Your task to perform on an android device: Open privacy settings Image 0: 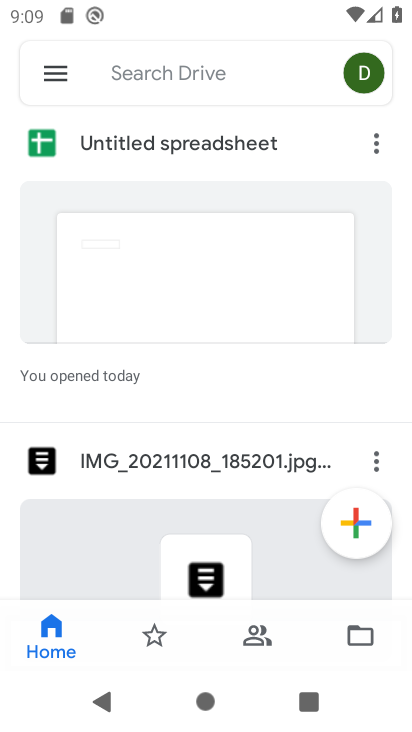
Step 0: press home button
Your task to perform on an android device: Open privacy settings Image 1: 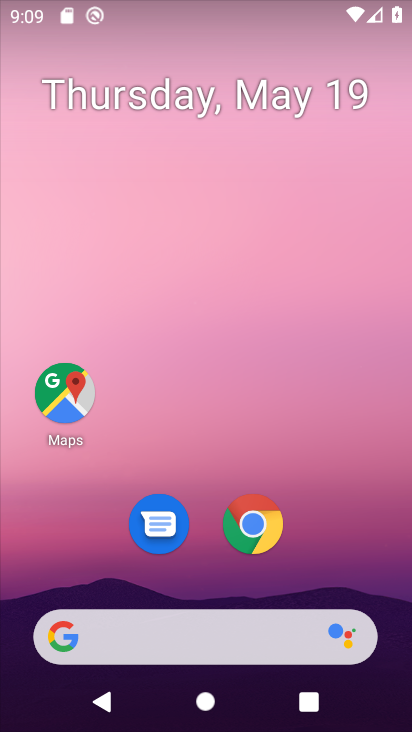
Step 1: drag from (339, 544) to (284, 79)
Your task to perform on an android device: Open privacy settings Image 2: 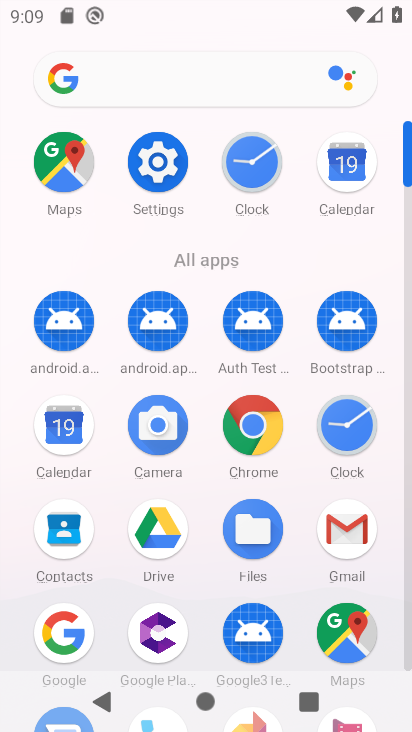
Step 2: click (172, 169)
Your task to perform on an android device: Open privacy settings Image 3: 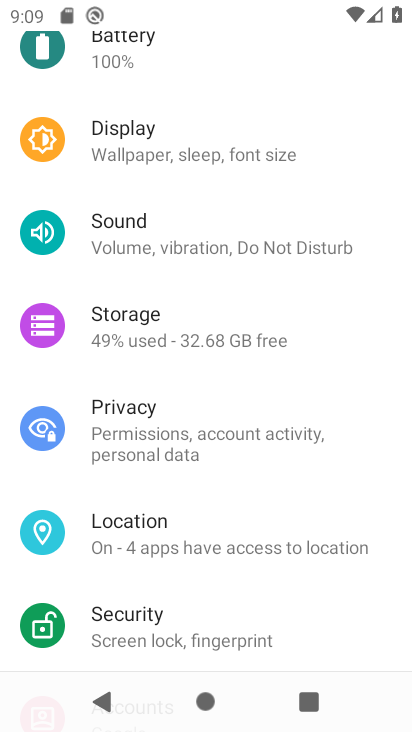
Step 3: click (194, 411)
Your task to perform on an android device: Open privacy settings Image 4: 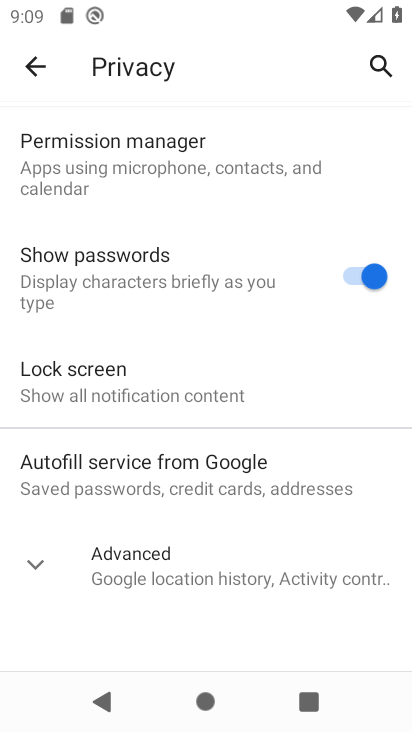
Step 4: task complete